Your task to perform on an android device: change keyboard looks Image 0: 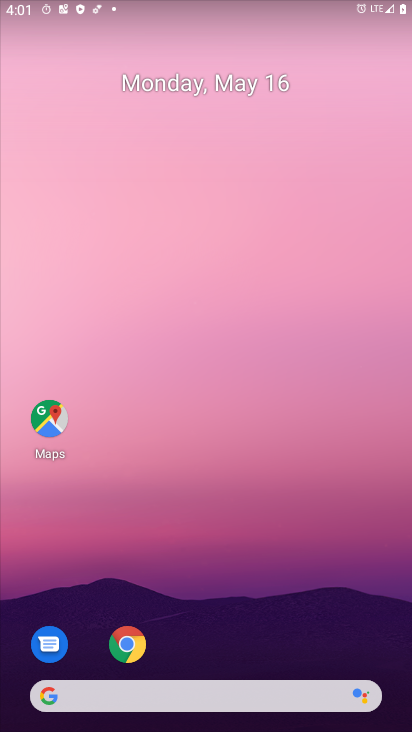
Step 0: drag from (225, 623) to (265, 203)
Your task to perform on an android device: change keyboard looks Image 1: 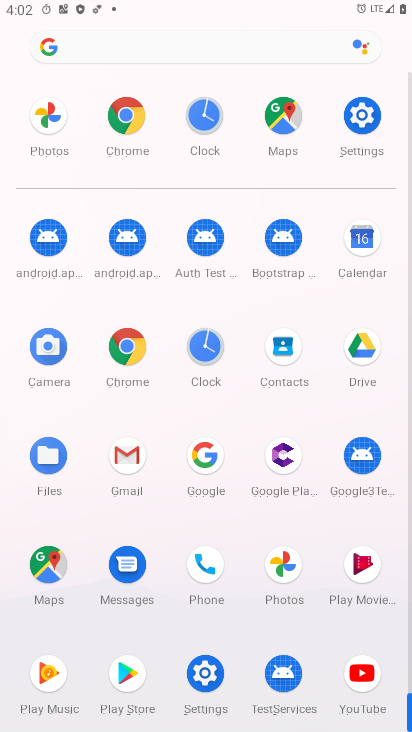
Step 1: click (357, 147)
Your task to perform on an android device: change keyboard looks Image 2: 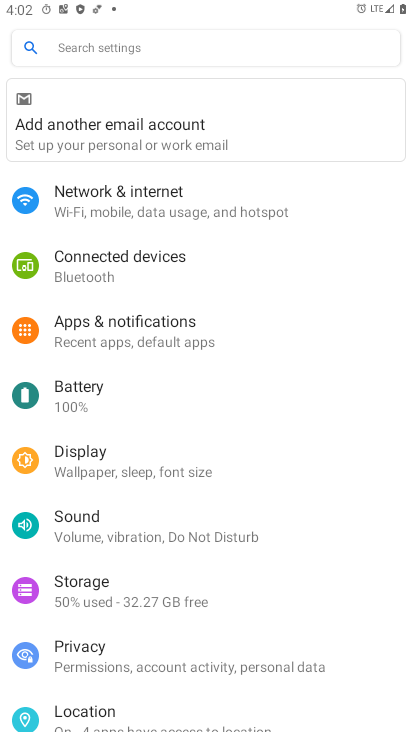
Step 2: drag from (144, 588) to (181, 375)
Your task to perform on an android device: change keyboard looks Image 3: 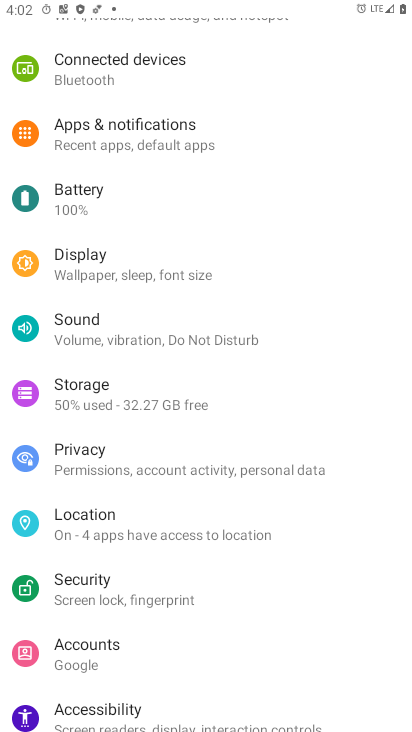
Step 3: drag from (154, 533) to (200, 292)
Your task to perform on an android device: change keyboard looks Image 4: 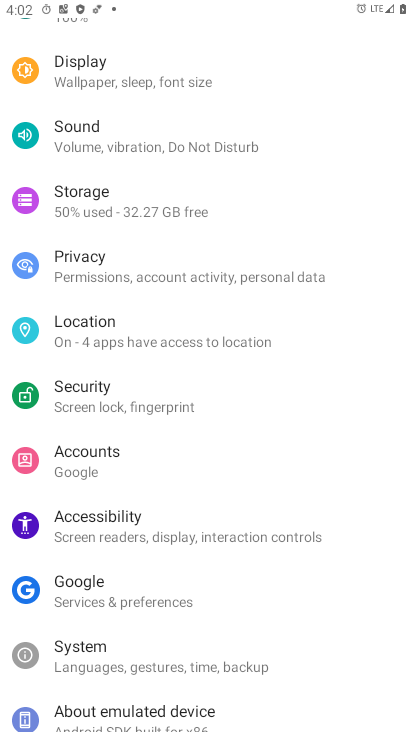
Step 4: drag from (167, 592) to (216, 374)
Your task to perform on an android device: change keyboard looks Image 5: 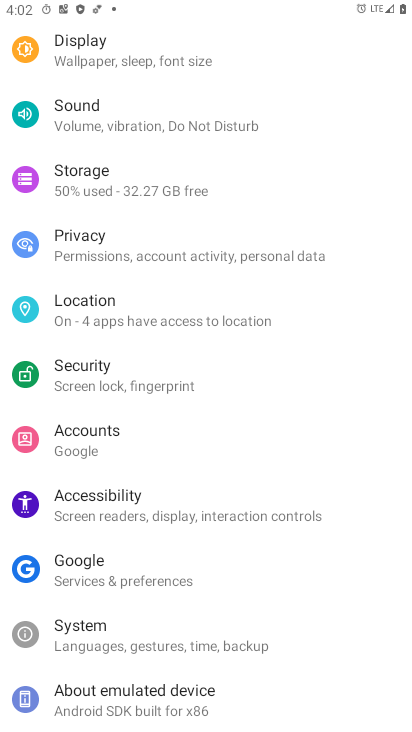
Step 5: click (152, 634)
Your task to perform on an android device: change keyboard looks Image 6: 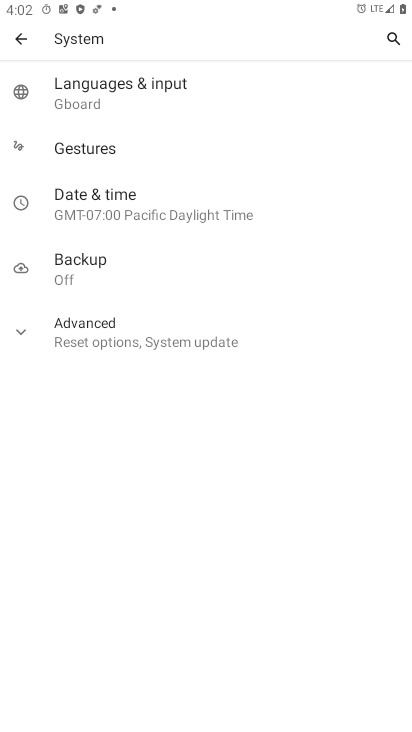
Step 6: click (232, 101)
Your task to perform on an android device: change keyboard looks Image 7: 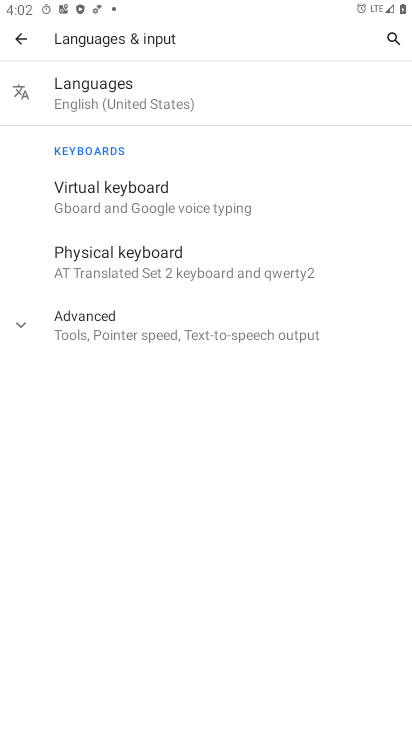
Step 7: click (215, 199)
Your task to perform on an android device: change keyboard looks Image 8: 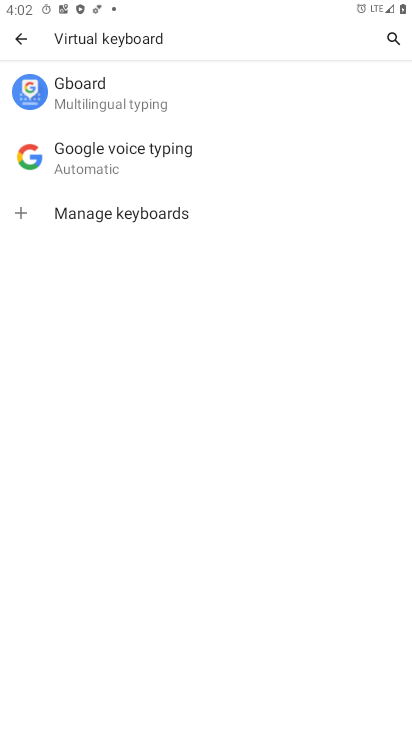
Step 8: click (175, 91)
Your task to perform on an android device: change keyboard looks Image 9: 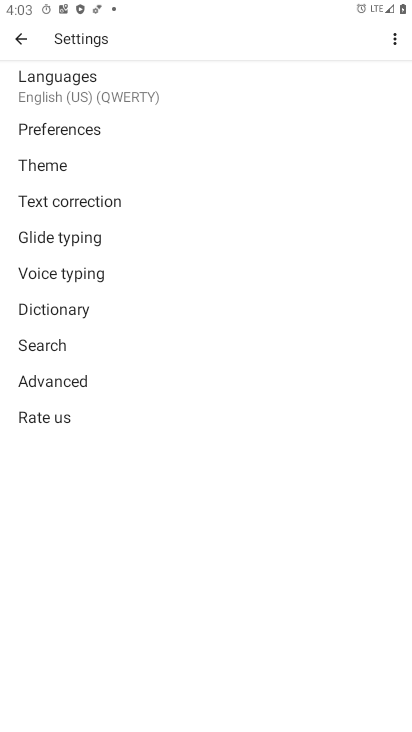
Step 9: click (75, 164)
Your task to perform on an android device: change keyboard looks Image 10: 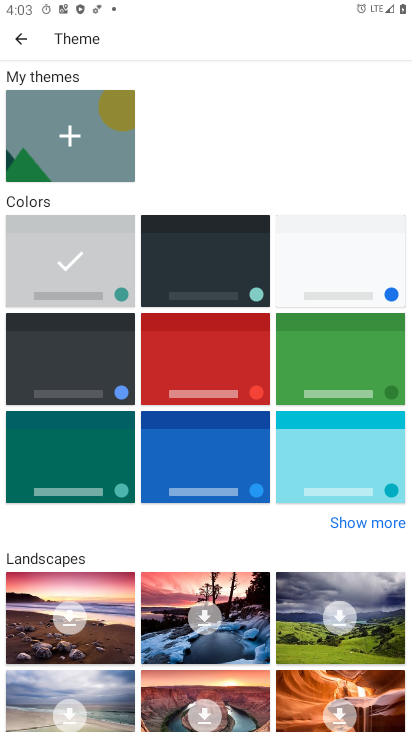
Step 10: click (319, 273)
Your task to perform on an android device: change keyboard looks Image 11: 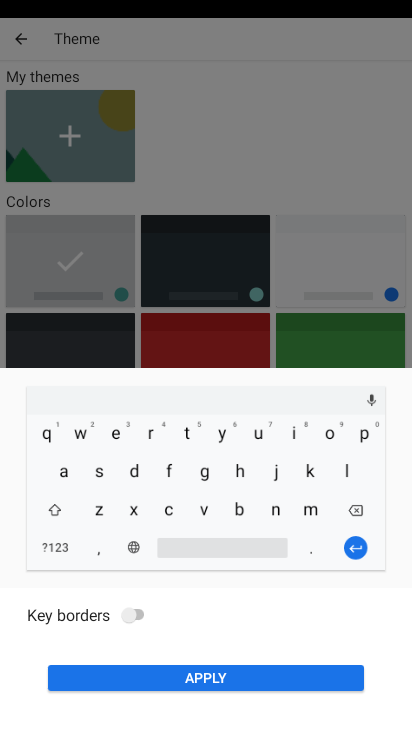
Step 11: click (328, 681)
Your task to perform on an android device: change keyboard looks Image 12: 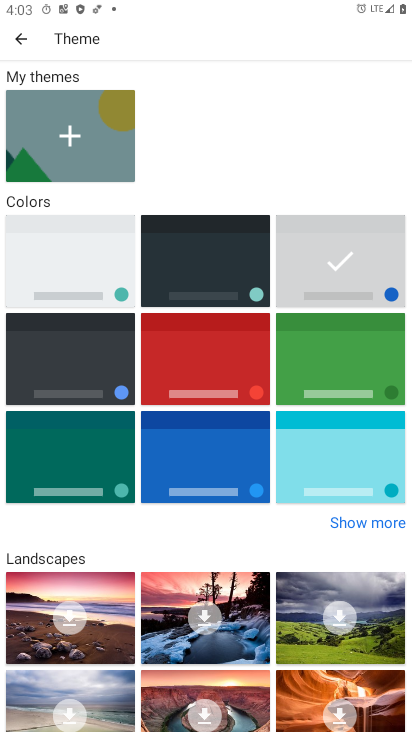
Step 12: task complete